Your task to perform on an android device: Go to Yahoo.com Image 0: 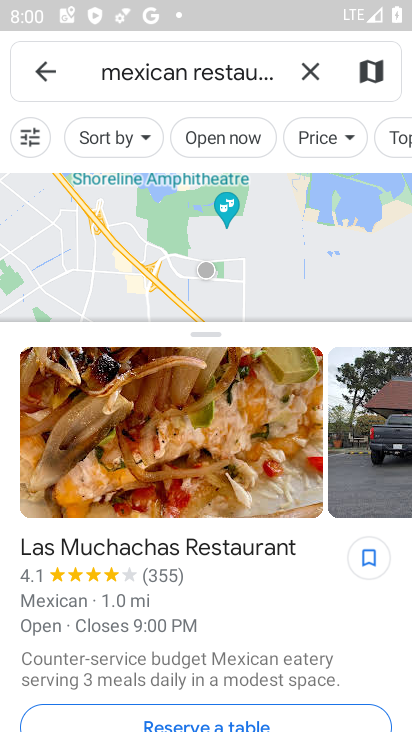
Step 0: press home button
Your task to perform on an android device: Go to Yahoo.com Image 1: 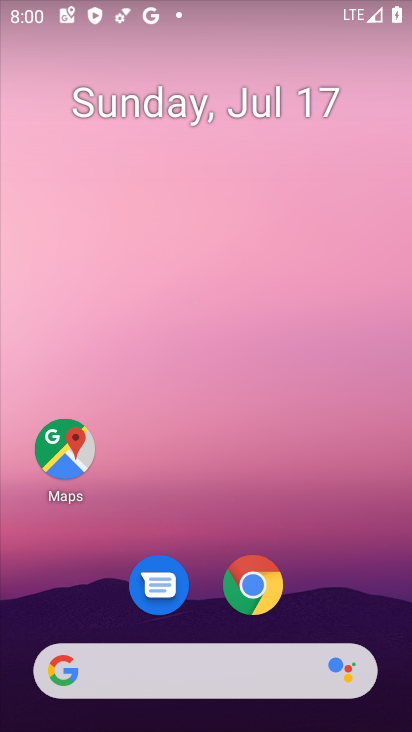
Step 1: click (263, 586)
Your task to perform on an android device: Go to Yahoo.com Image 2: 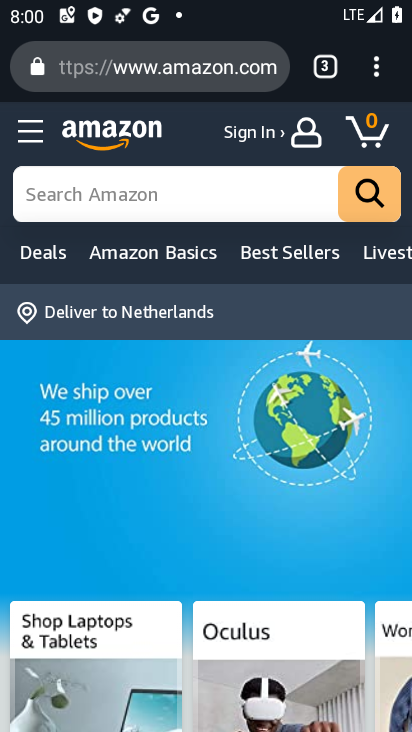
Step 2: click (373, 71)
Your task to perform on an android device: Go to Yahoo.com Image 3: 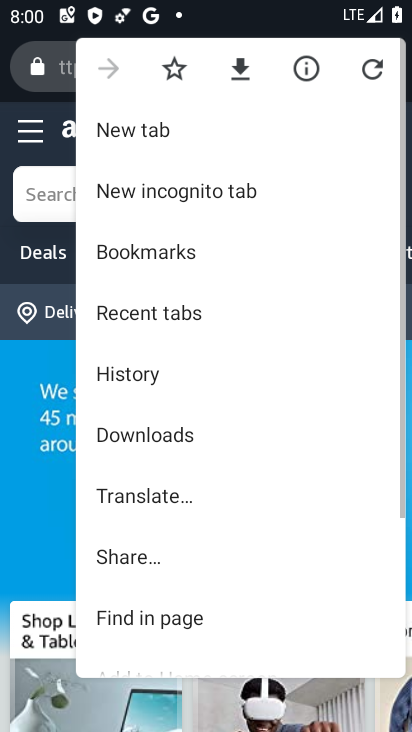
Step 3: click (279, 124)
Your task to perform on an android device: Go to Yahoo.com Image 4: 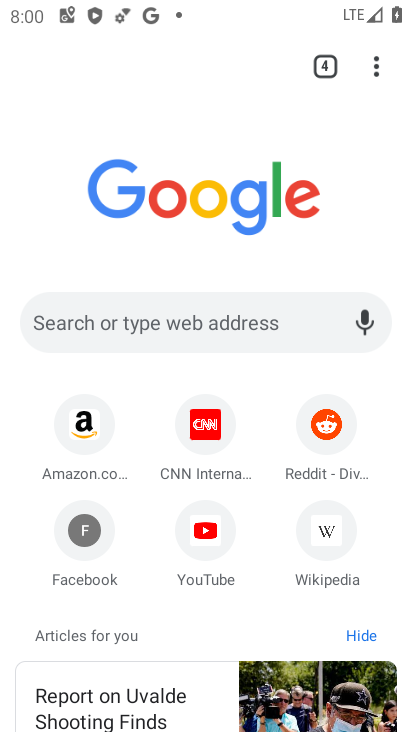
Step 4: click (144, 315)
Your task to perform on an android device: Go to Yahoo.com Image 5: 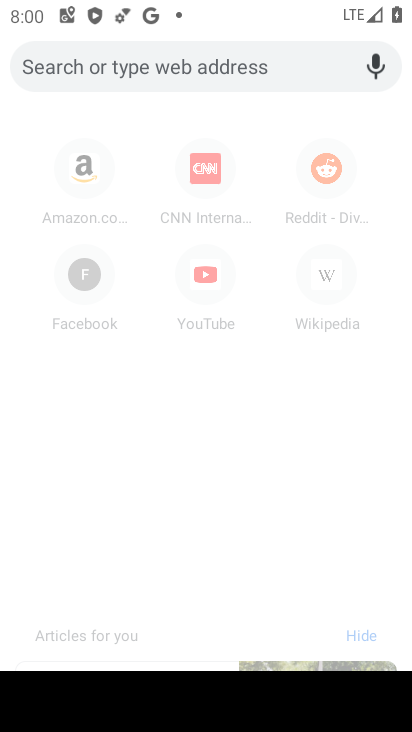
Step 5: type "yahoo.com"
Your task to perform on an android device: Go to Yahoo.com Image 6: 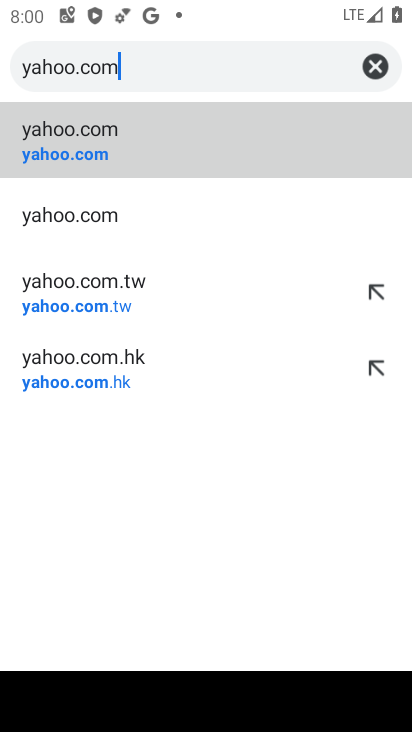
Step 6: click (70, 205)
Your task to perform on an android device: Go to Yahoo.com Image 7: 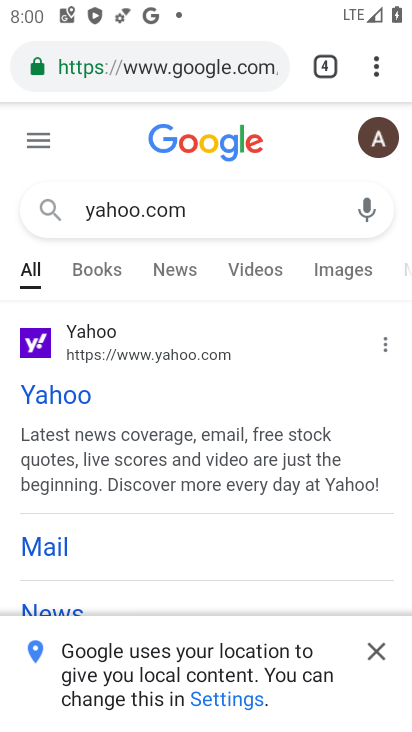
Step 7: click (49, 388)
Your task to perform on an android device: Go to Yahoo.com Image 8: 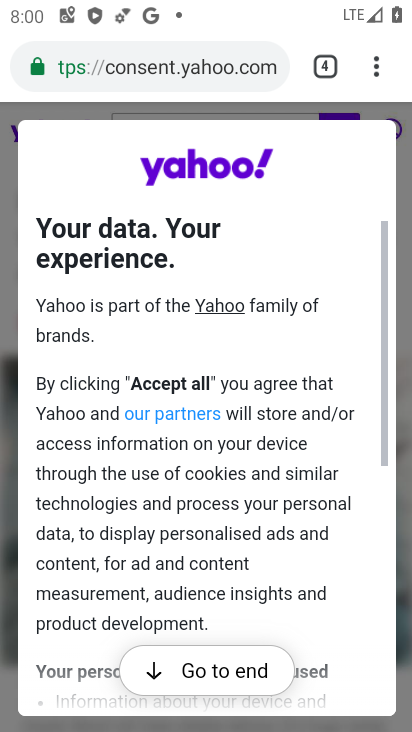
Step 8: click (222, 666)
Your task to perform on an android device: Go to Yahoo.com Image 9: 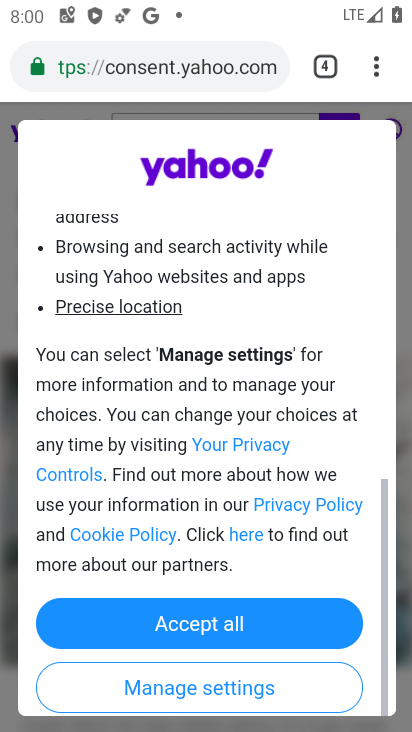
Step 9: click (227, 620)
Your task to perform on an android device: Go to Yahoo.com Image 10: 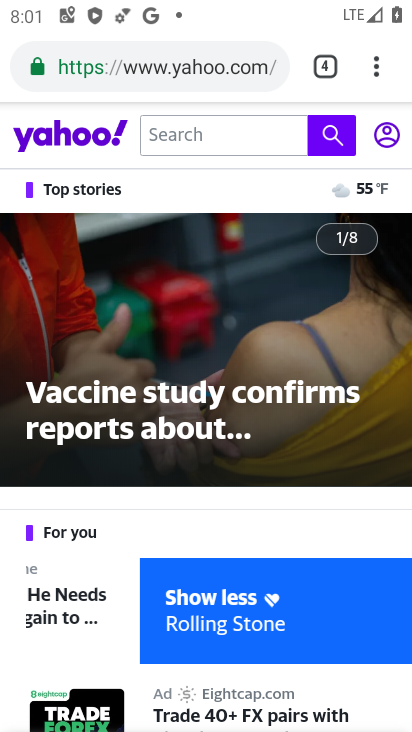
Step 10: task complete